Your task to perform on an android device: Clear the cart on amazon. Search for usb-b on amazon, select the first entry, add it to the cart, then select checkout. Image 0: 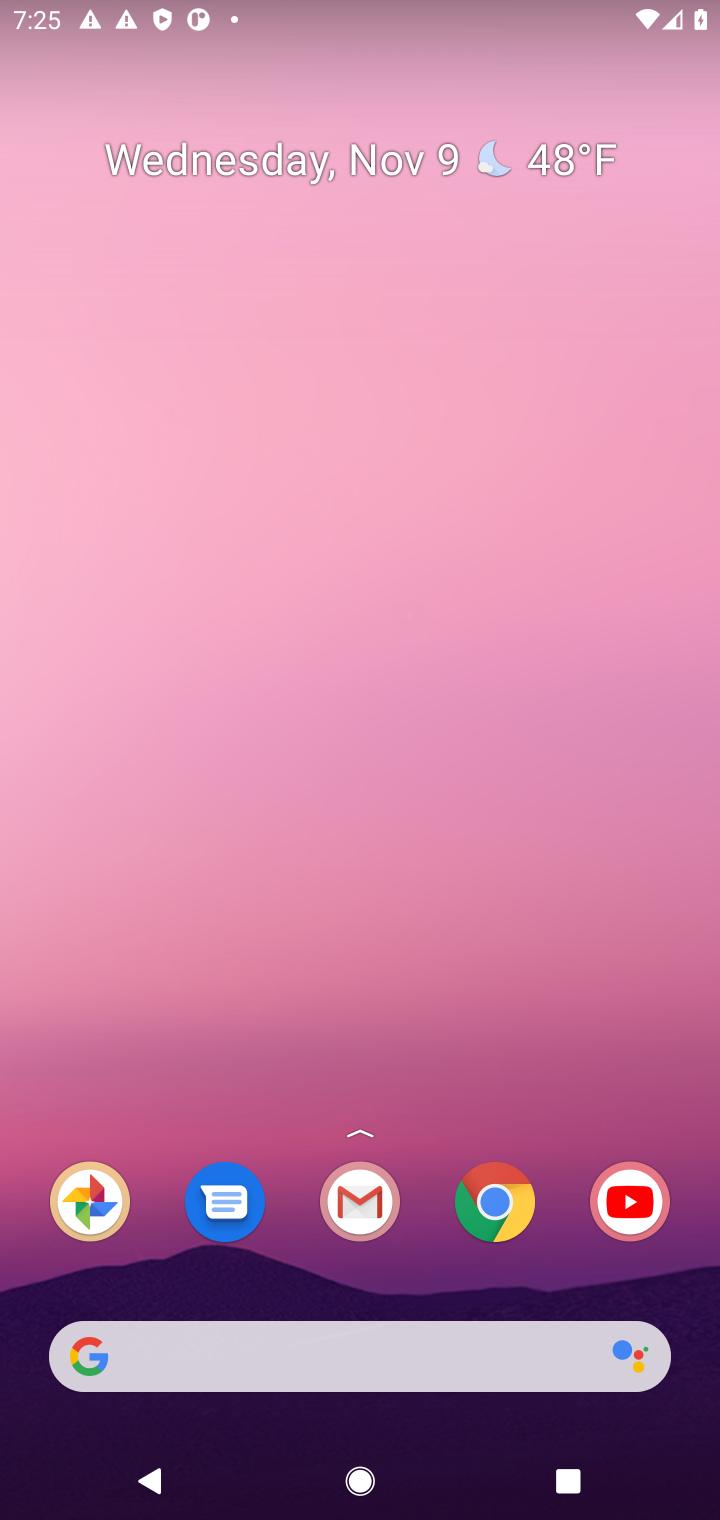
Step 0: click (502, 1196)
Your task to perform on an android device: Clear the cart on amazon. Search for usb-b on amazon, select the first entry, add it to the cart, then select checkout. Image 1: 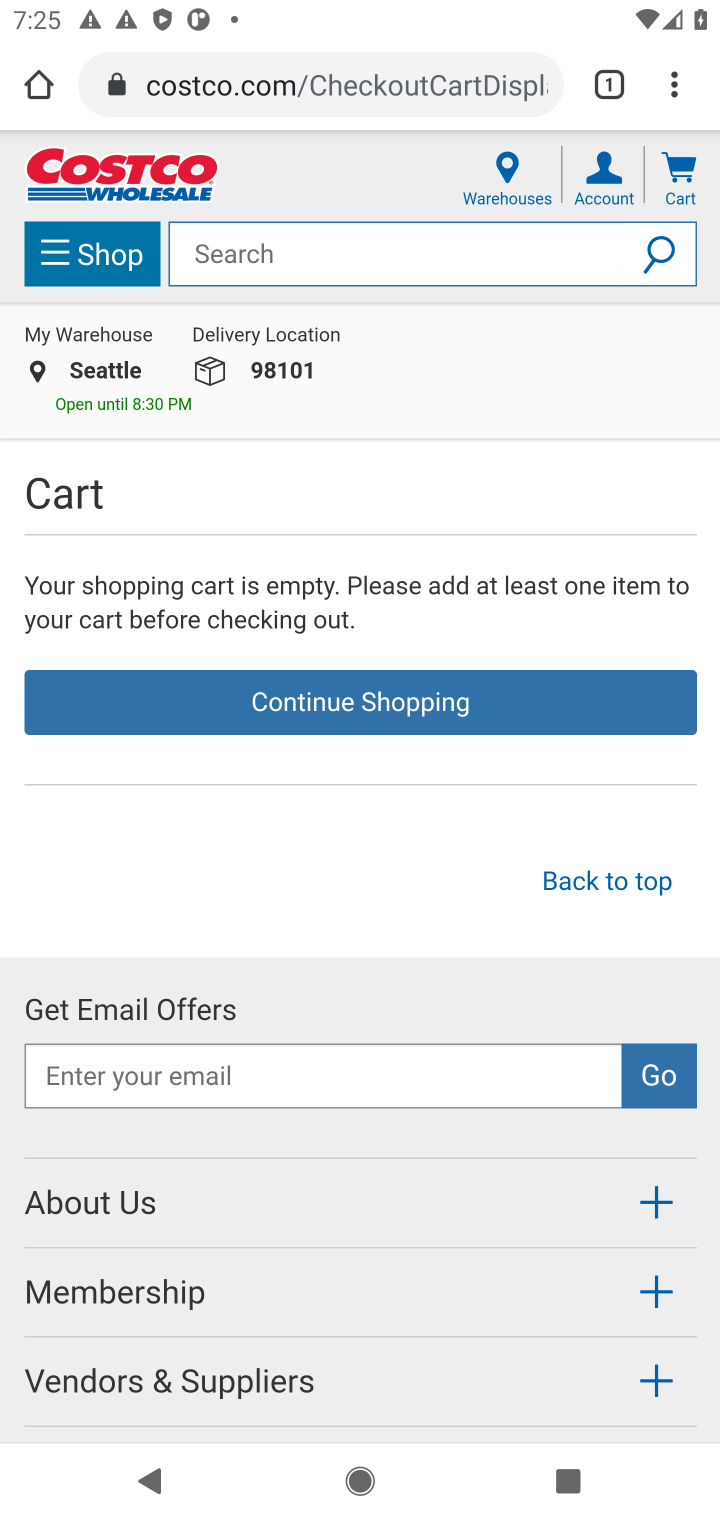
Step 1: click (430, 83)
Your task to perform on an android device: Clear the cart on amazon. Search for usb-b on amazon, select the first entry, add it to the cart, then select checkout. Image 2: 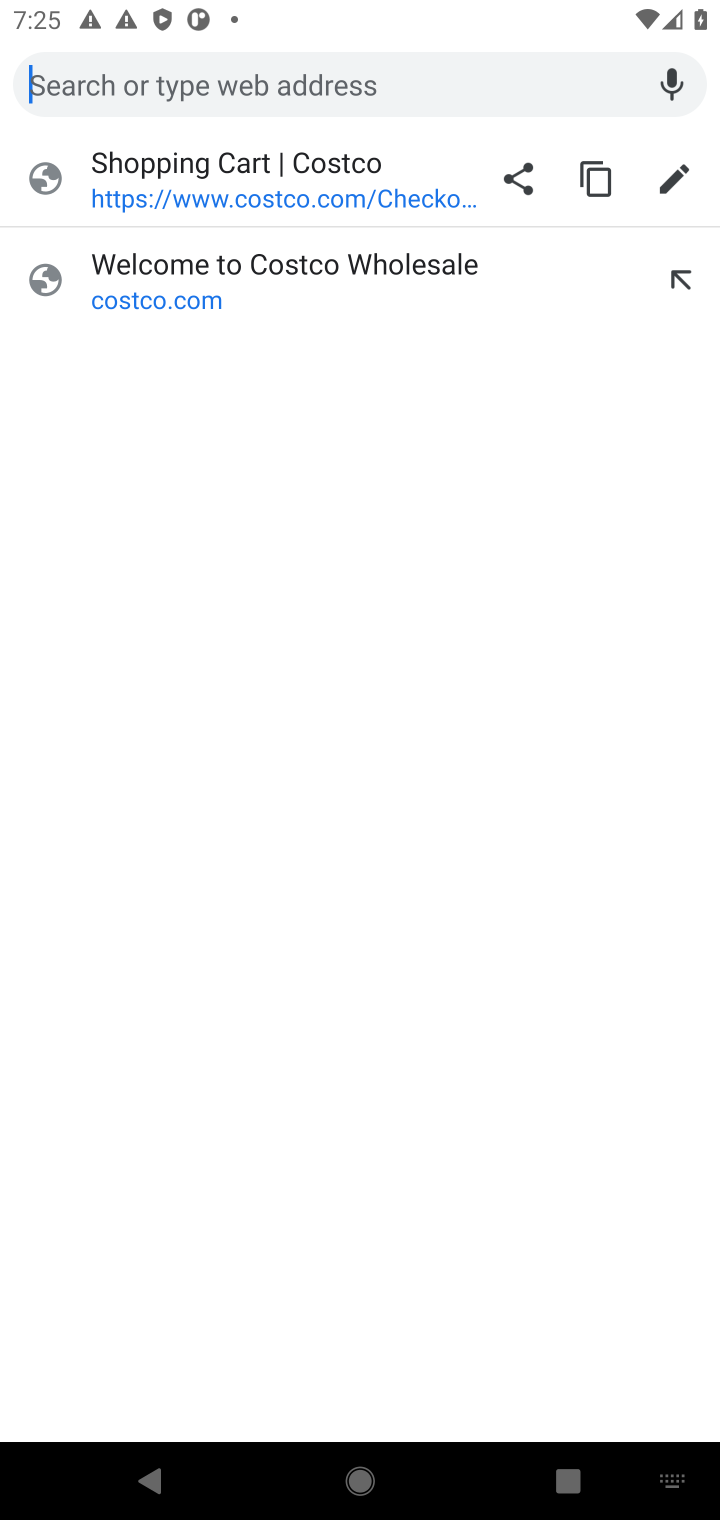
Step 2: type " amazon."
Your task to perform on an android device: Clear the cart on amazon. Search for usb-b on amazon, select the first entry, add it to the cart, then select checkout. Image 3: 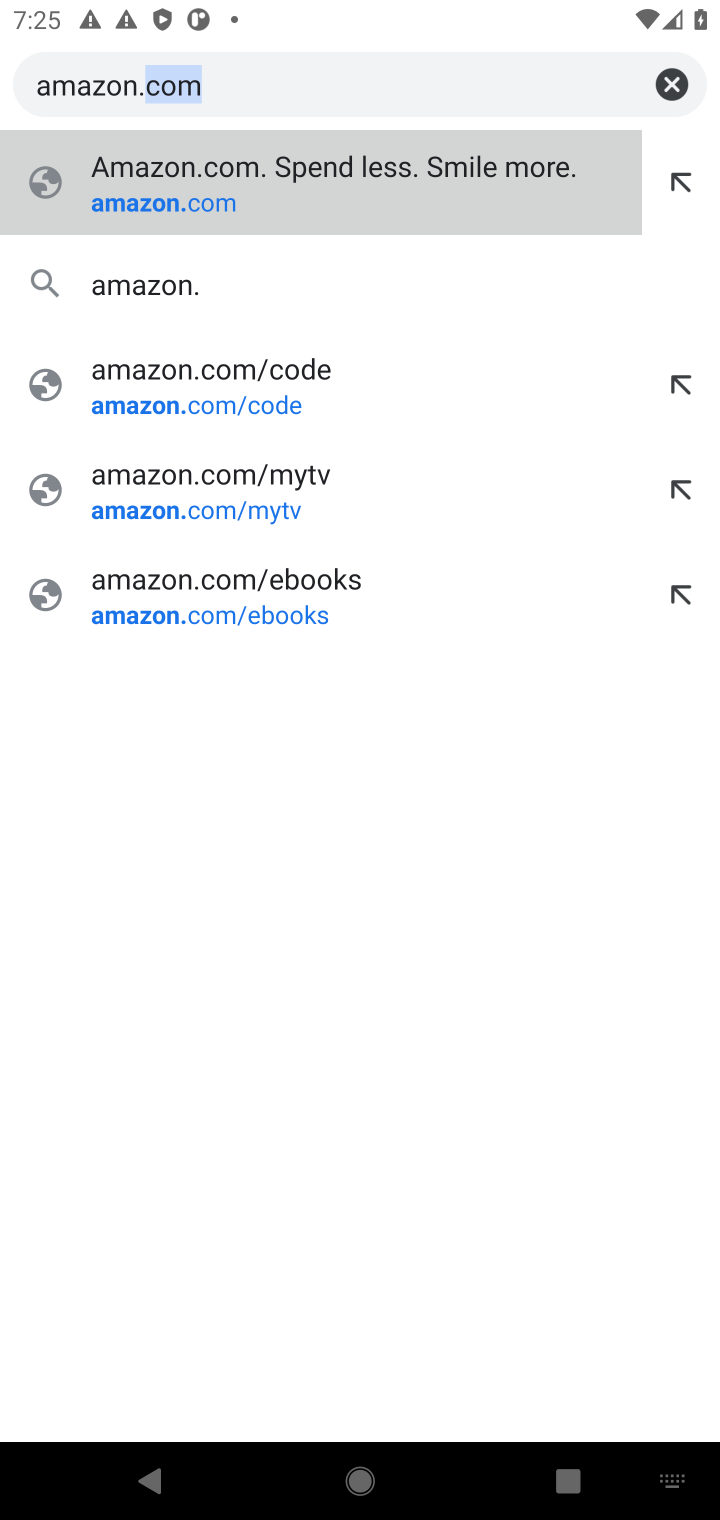
Step 3: press enter
Your task to perform on an android device: Clear the cart on amazon. Search for usb-b on amazon, select the first entry, add it to the cart, then select checkout. Image 4: 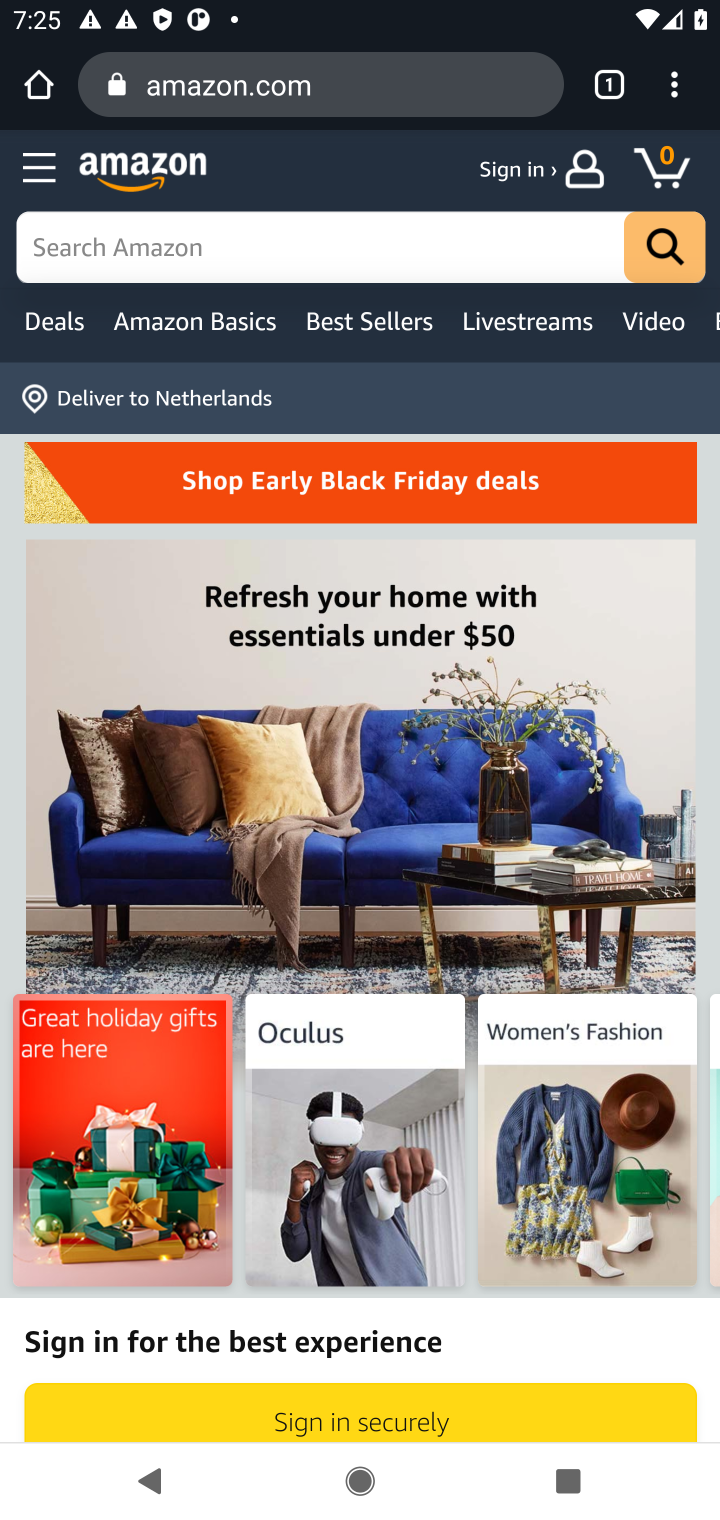
Step 4: click (395, 240)
Your task to perform on an android device: Clear the cart on amazon. Search for usb-b on amazon, select the first entry, add it to the cart, then select checkout. Image 5: 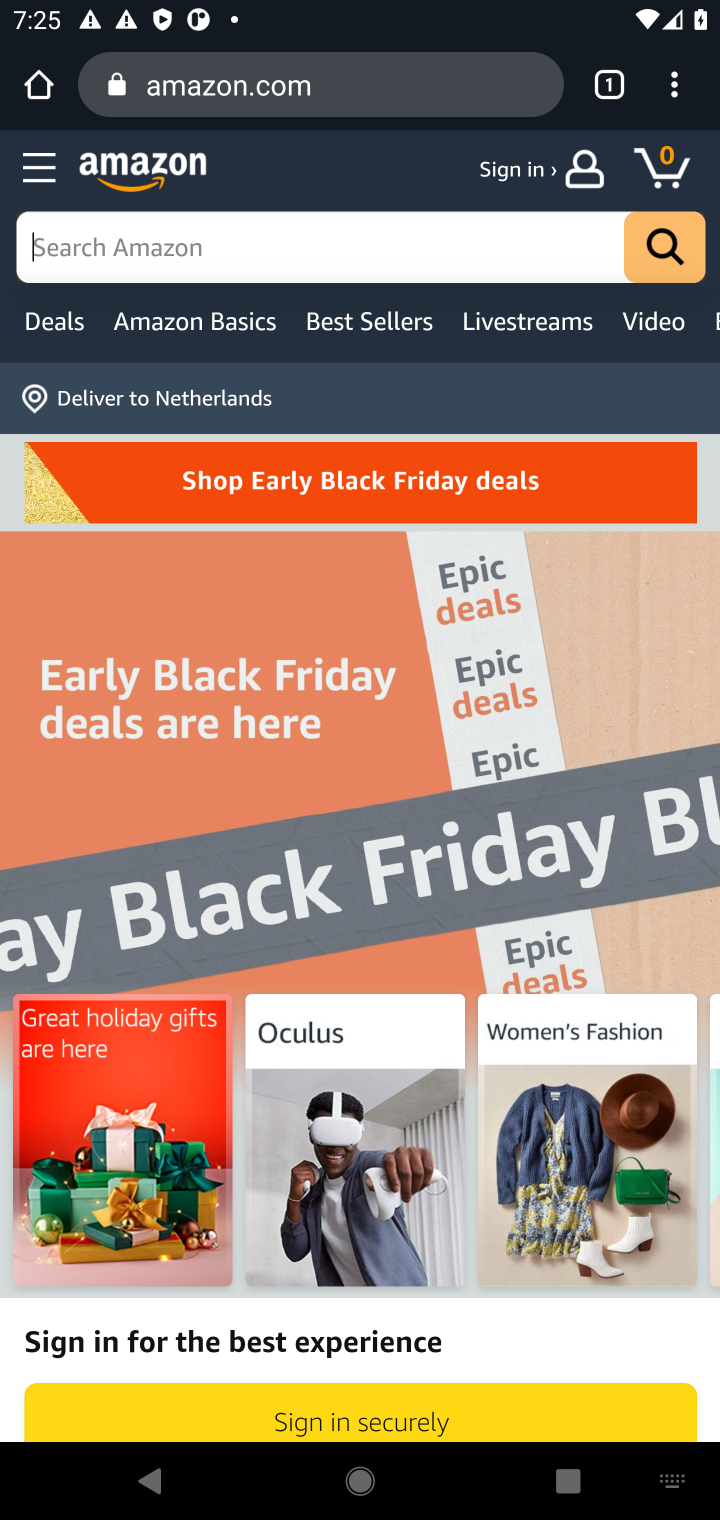
Step 5: press enter
Your task to perform on an android device: Clear the cart on amazon. Search for usb-b on amazon, select the first entry, add it to the cart, then select checkout. Image 6: 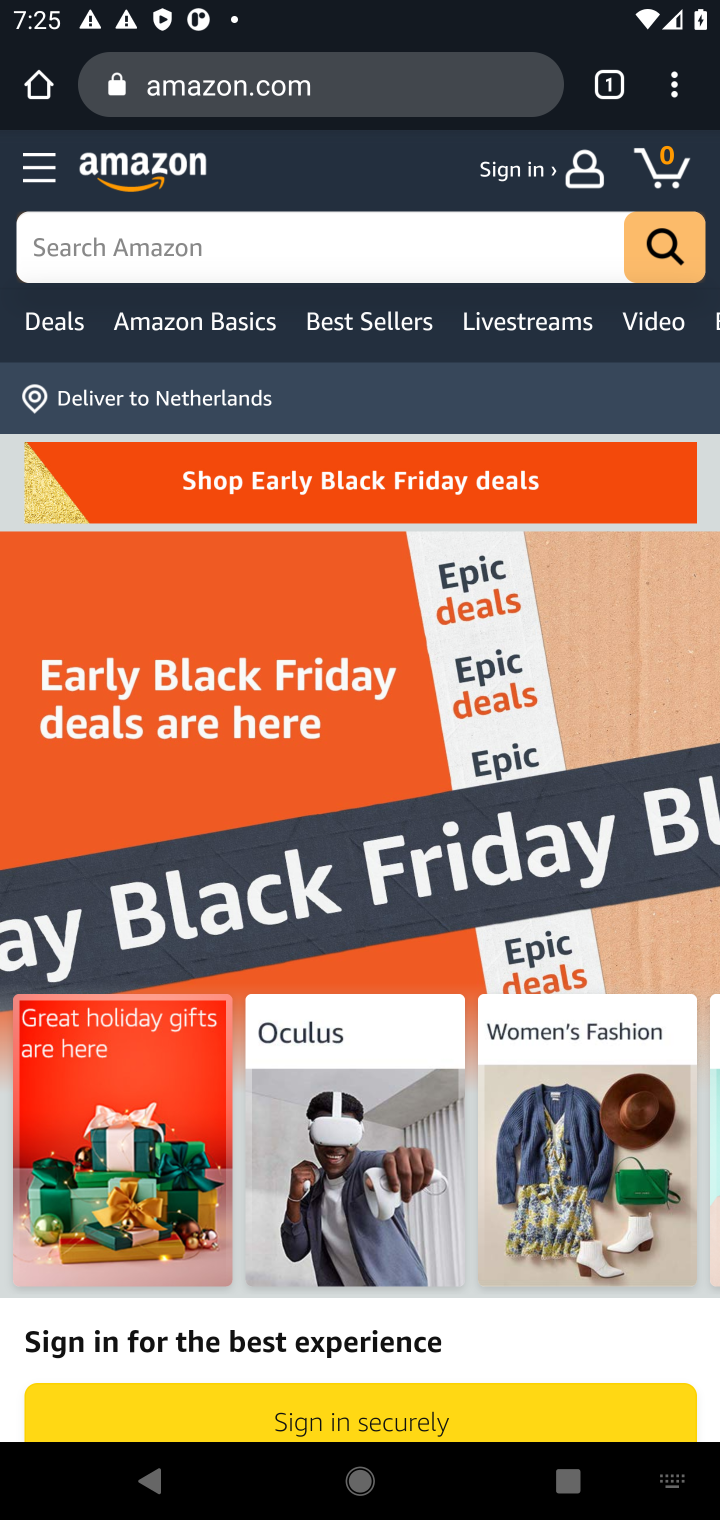
Step 6: type "usb-b "
Your task to perform on an android device: Clear the cart on amazon. Search for usb-b on amazon, select the first entry, add it to the cart, then select checkout. Image 7: 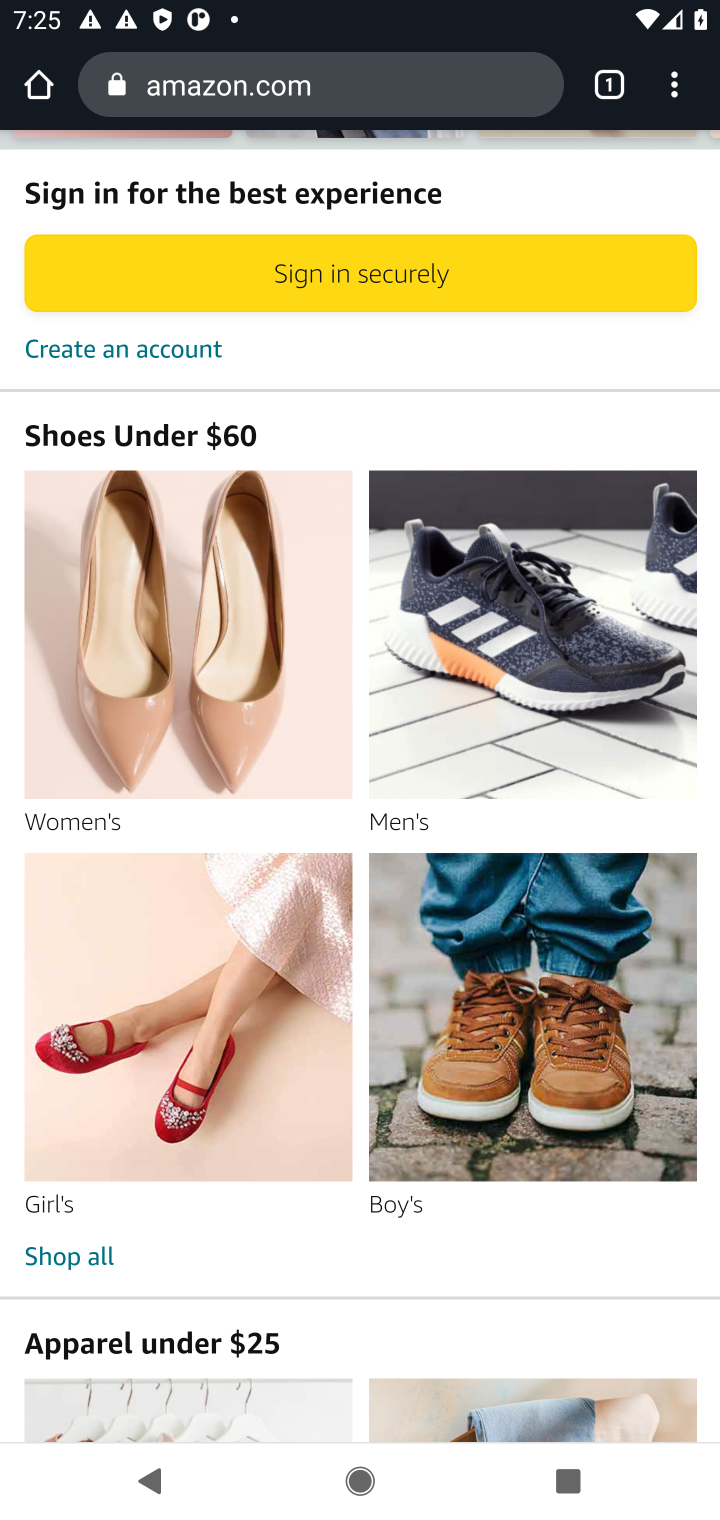
Step 7: drag from (455, 186) to (478, 1219)
Your task to perform on an android device: Clear the cart on amazon. Search for usb-b on amazon, select the first entry, add it to the cart, then select checkout. Image 8: 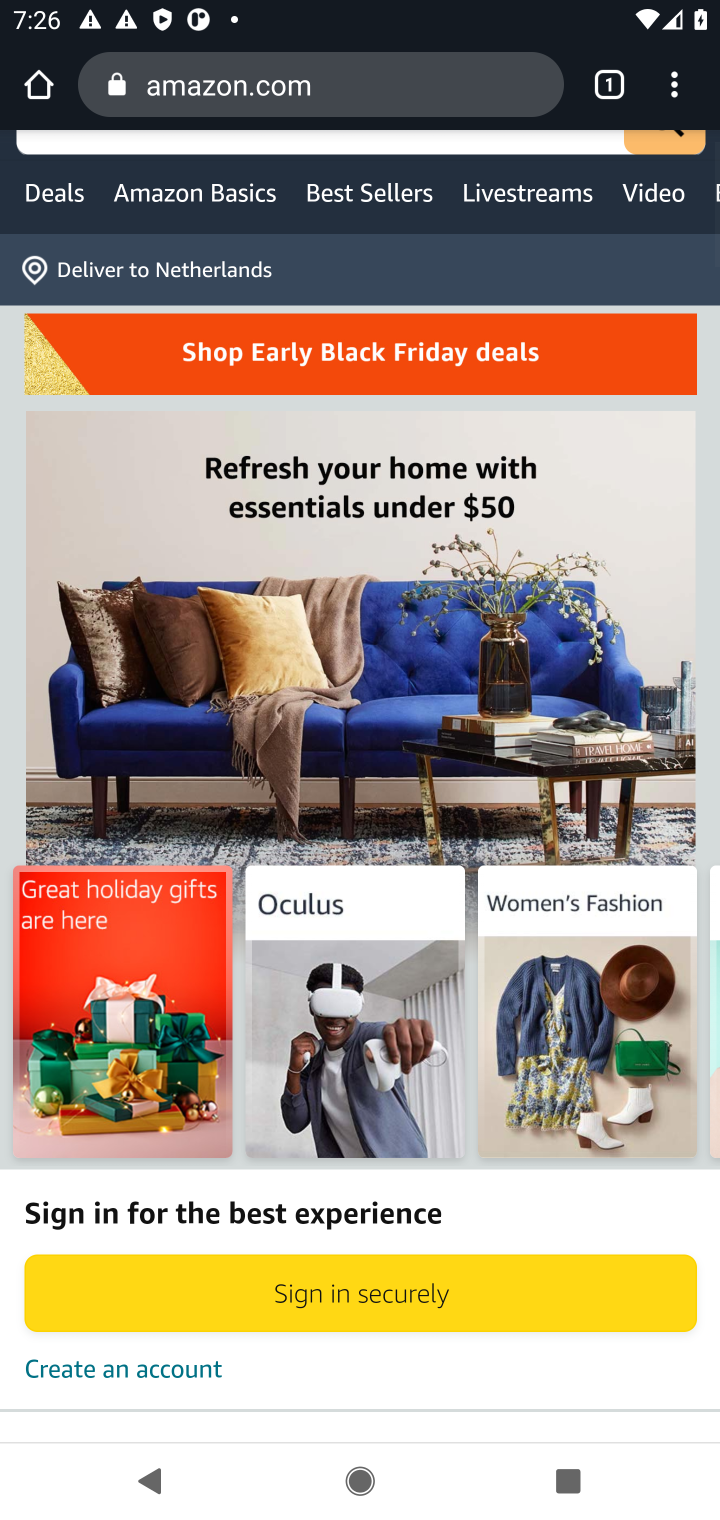
Step 8: drag from (392, 536) to (402, 1152)
Your task to perform on an android device: Clear the cart on amazon. Search for usb-b on amazon, select the first entry, add it to the cart, then select checkout. Image 9: 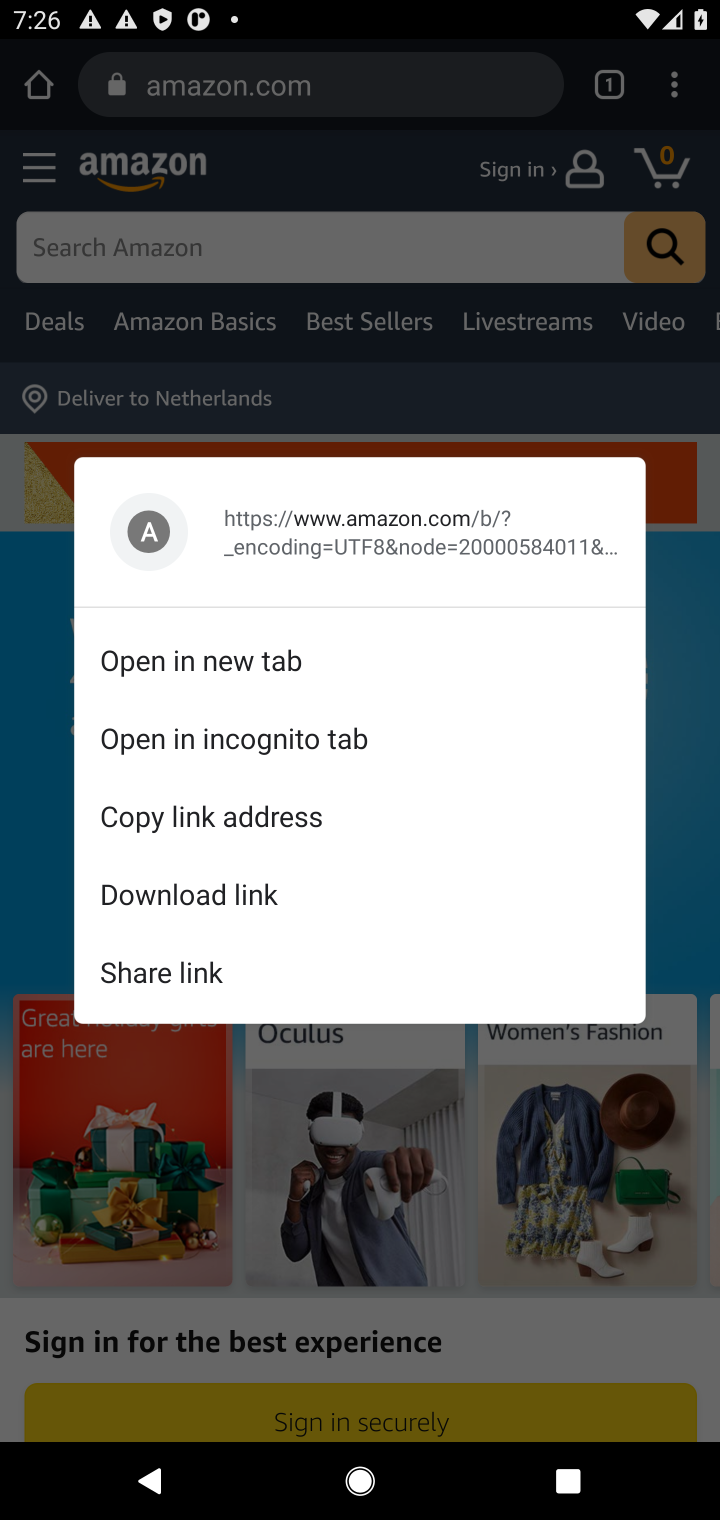
Step 9: click (216, 263)
Your task to perform on an android device: Clear the cart on amazon. Search for usb-b on amazon, select the first entry, add it to the cart, then select checkout. Image 10: 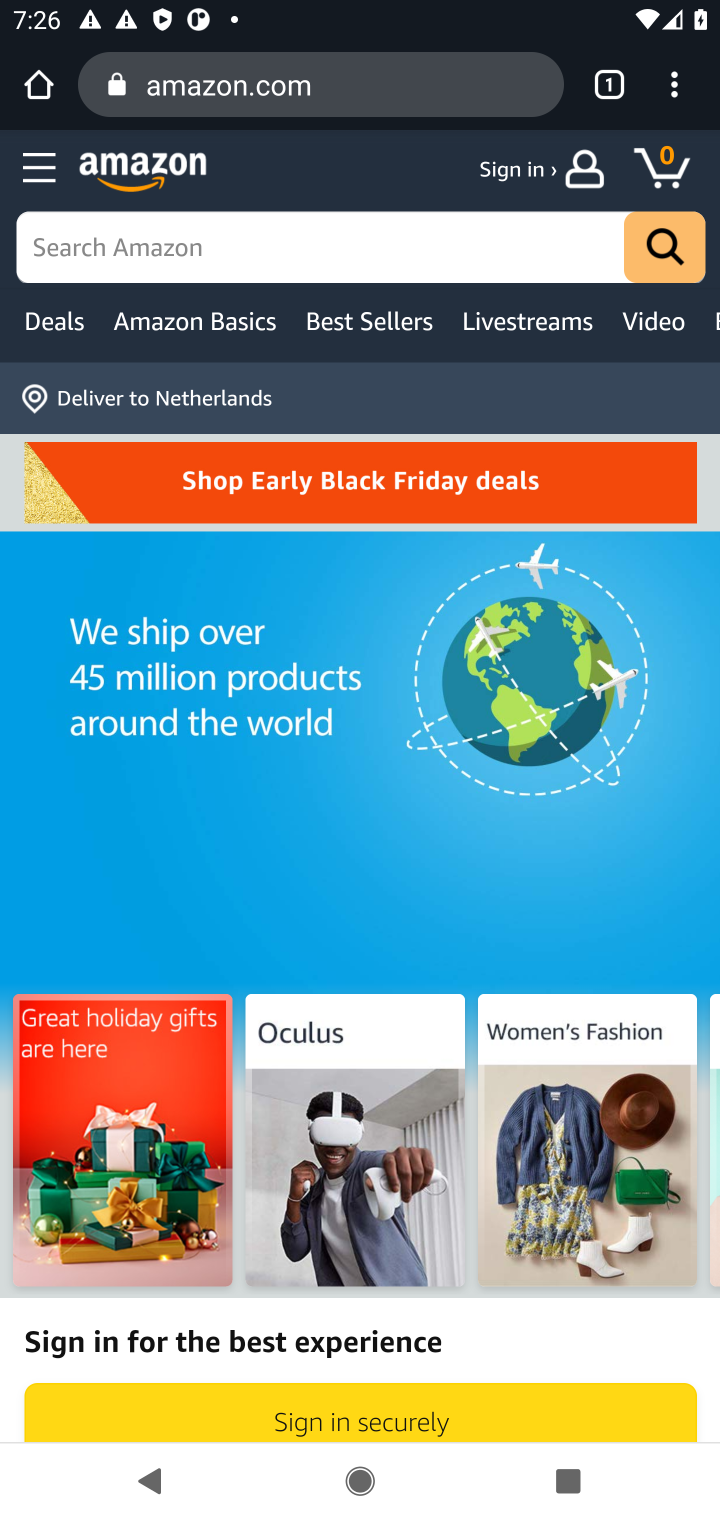
Step 10: click (229, 256)
Your task to perform on an android device: Clear the cart on amazon. Search for usb-b on amazon, select the first entry, add it to the cart, then select checkout. Image 11: 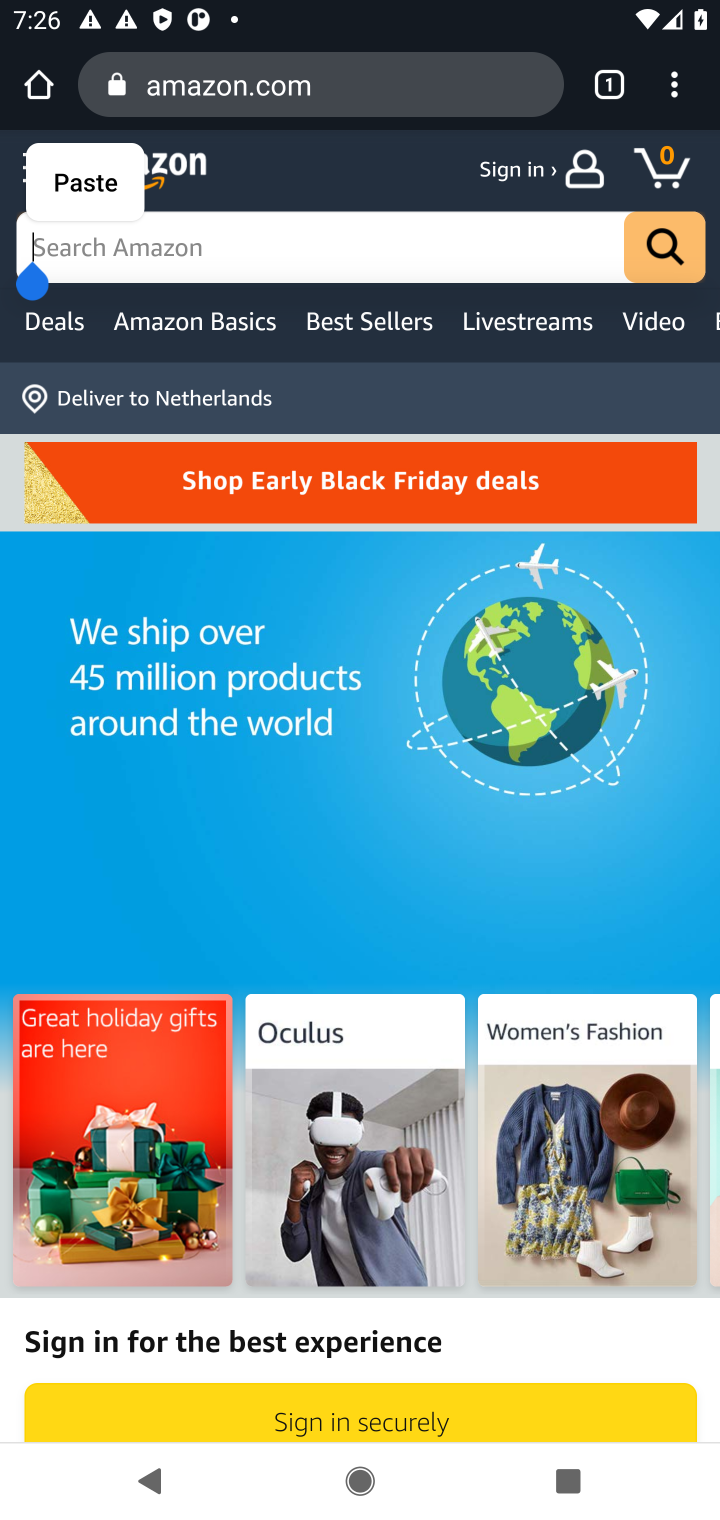
Step 11: type "usb-b "
Your task to perform on an android device: Clear the cart on amazon. Search for usb-b on amazon, select the first entry, add it to the cart, then select checkout. Image 12: 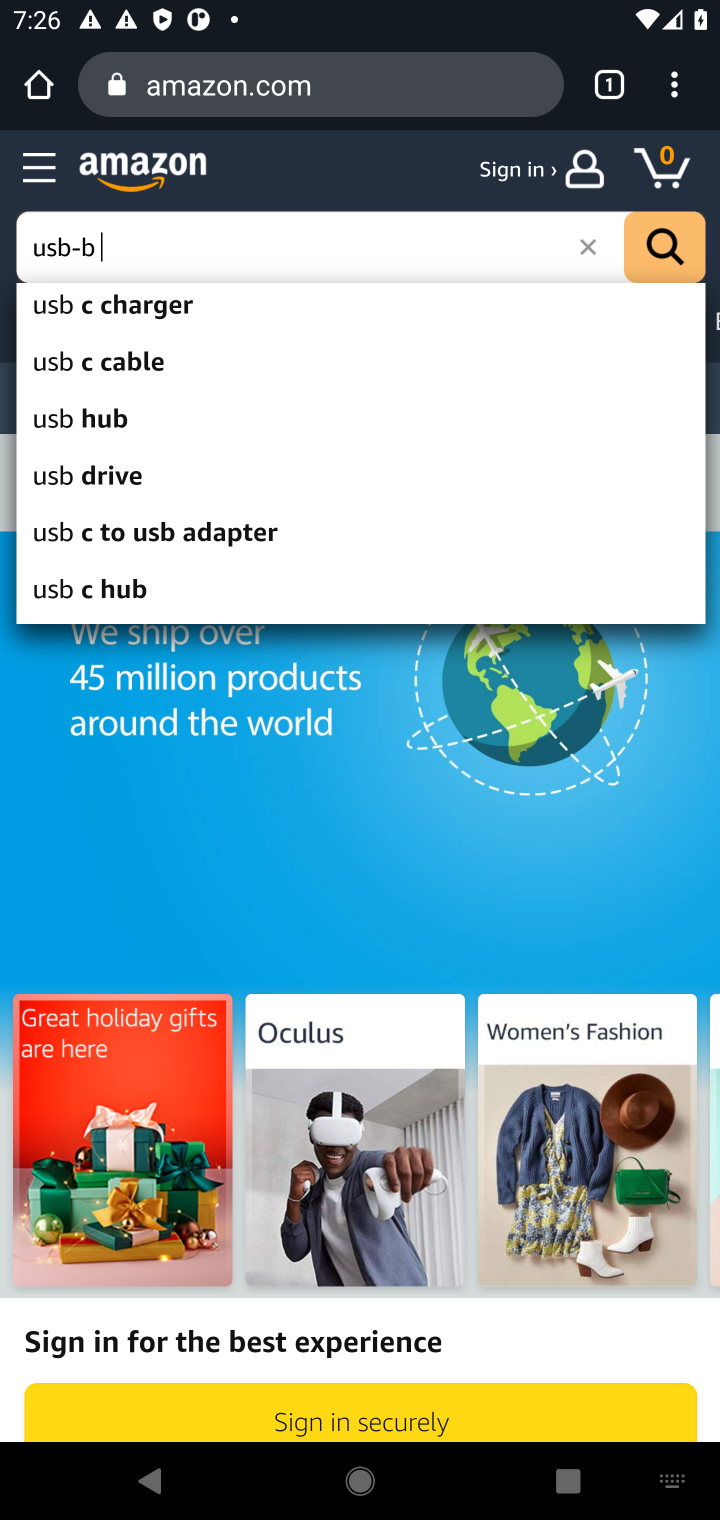
Step 12: press enter
Your task to perform on an android device: Clear the cart on amazon. Search for usb-b on amazon, select the first entry, add it to the cart, then select checkout. Image 13: 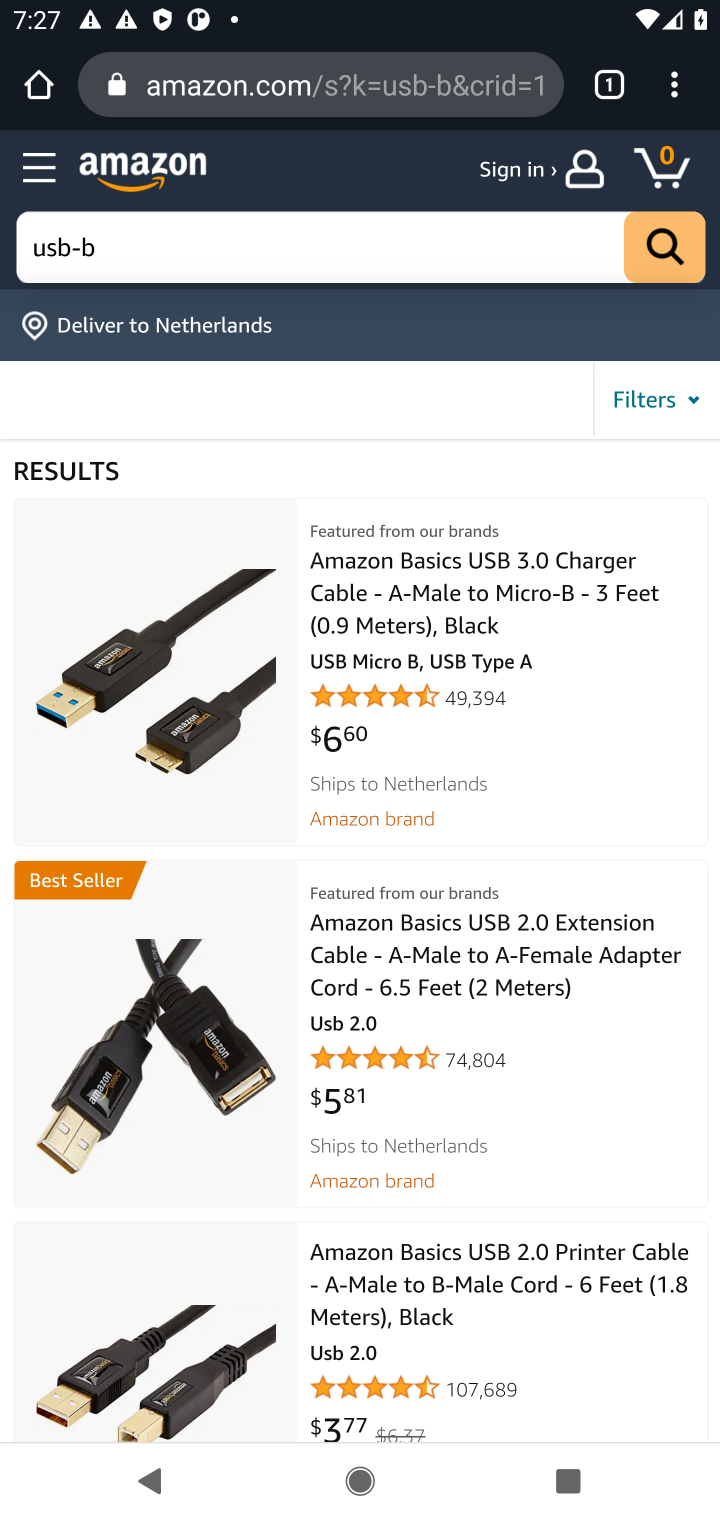
Step 13: click (433, 603)
Your task to perform on an android device: Clear the cart on amazon. Search for usb-b on amazon, select the first entry, add it to the cart, then select checkout. Image 14: 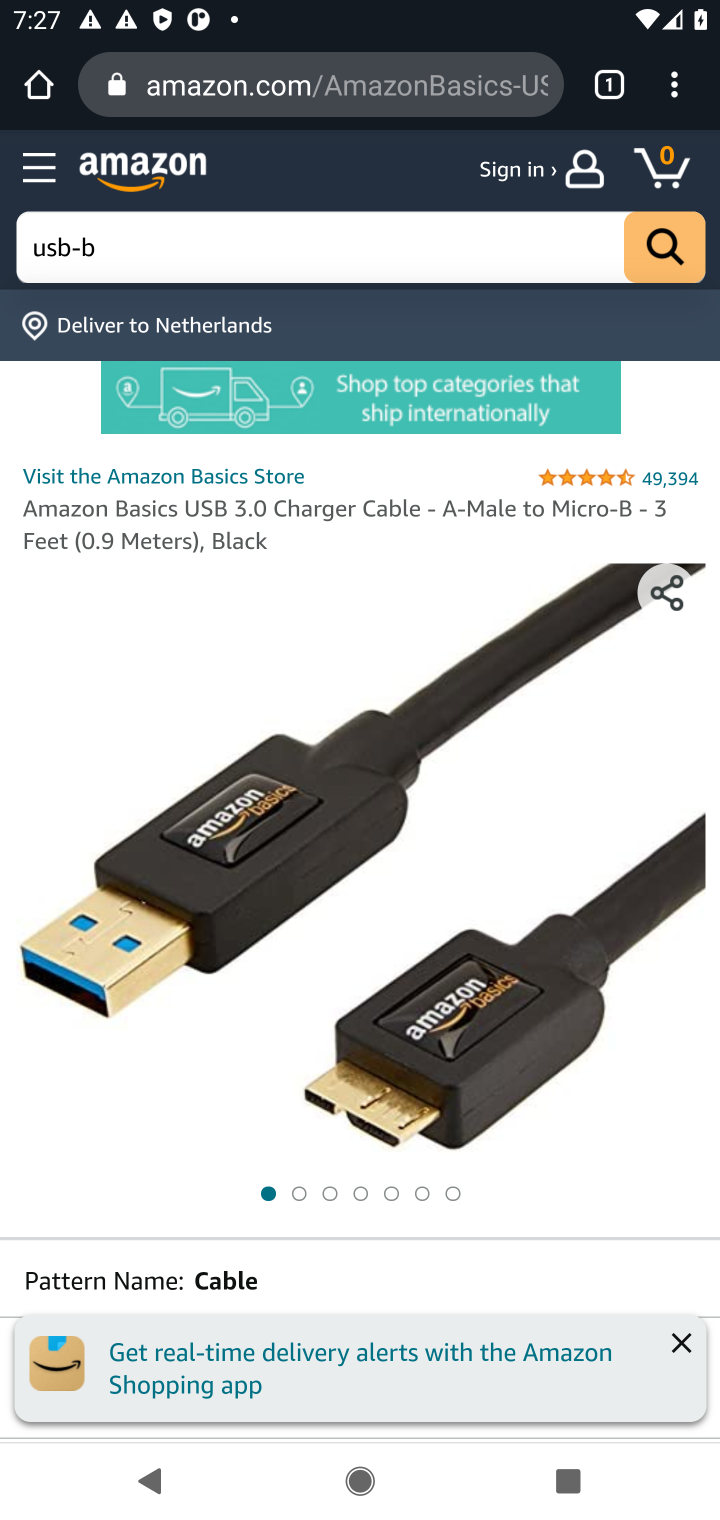
Step 14: task complete